Your task to perform on an android device: open app "Facebook Lite" (install if not already installed) and enter user name: "suppers@inbox.com" and password: "downplayed" Image 0: 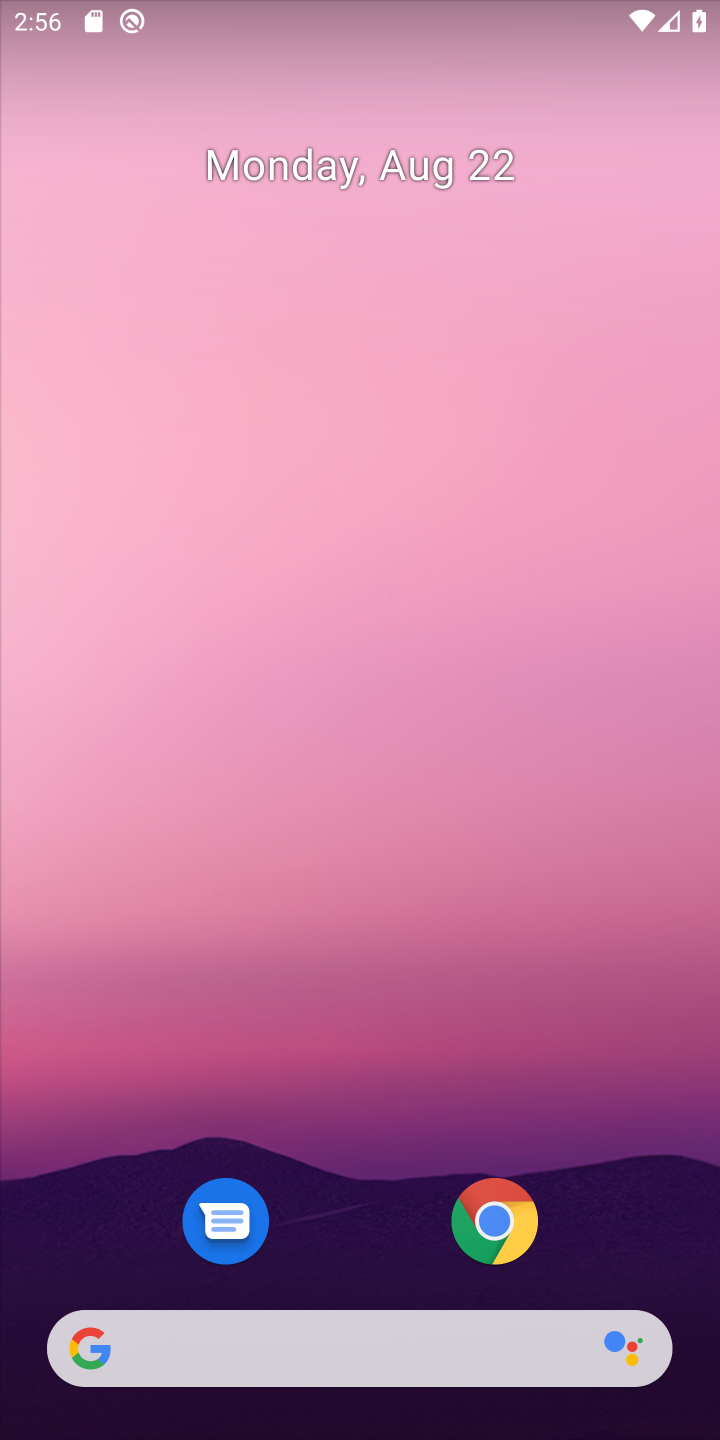
Step 0: drag from (369, 1261) to (500, 187)
Your task to perform on an android device: open app "Facebook Lite" (install if not already installed) and enter user name: "suppers@inbox.com" and password: "downplayed" Image 1: 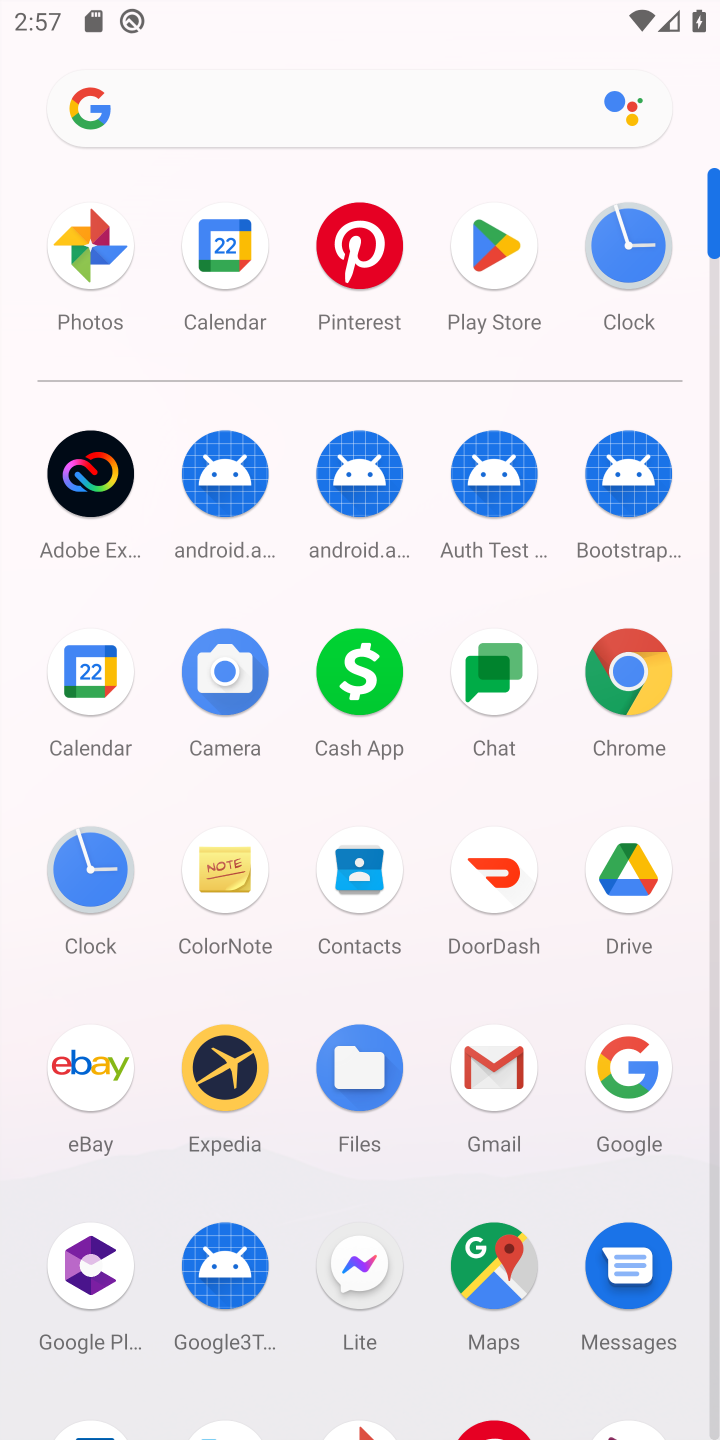
Step 1: click (494, 237)
Your task to perform on an android device: open app "Facebook Lite" (install if not already installed) and enter user name: "suppers@inbox.com" and password: "downplayed" Image 2: 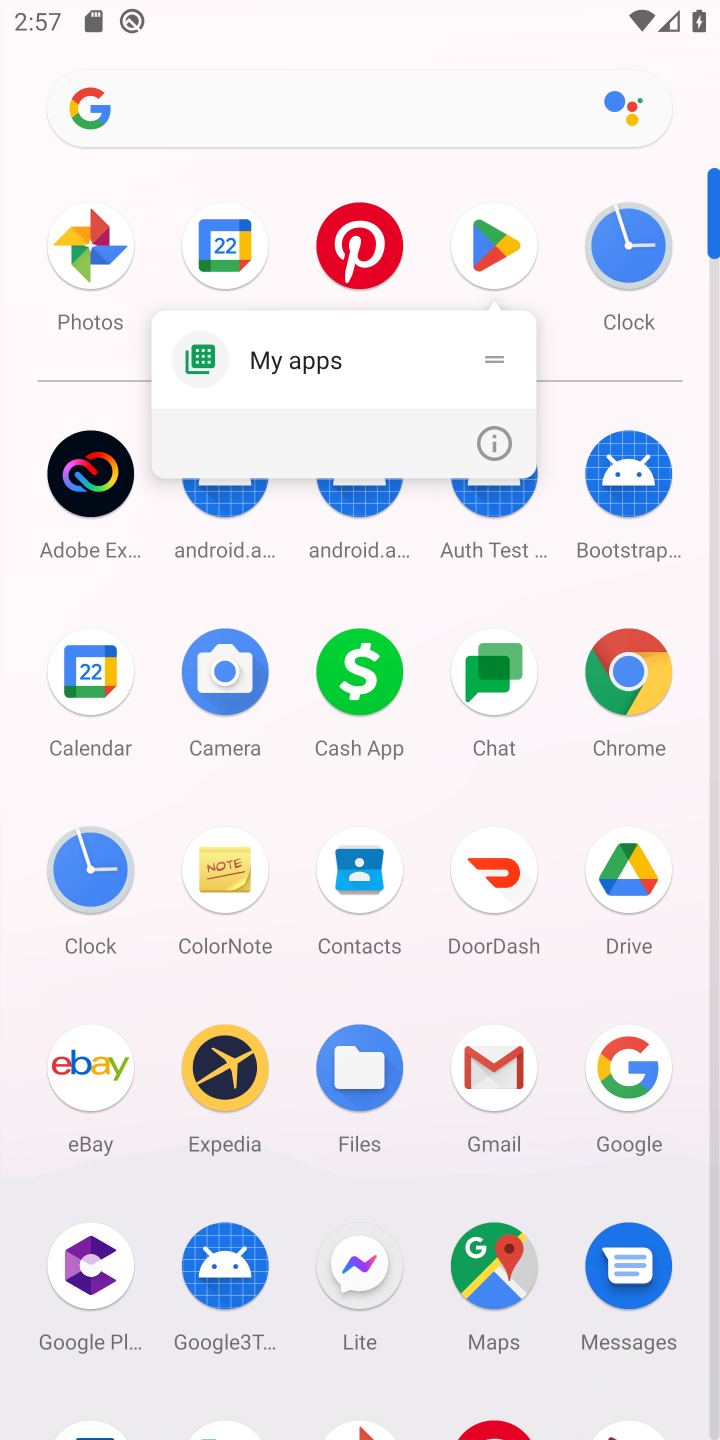
Step 2: click (479, 235)
Your task to perform on an android device: open app "Facebook Lite" (install if not already installed) and enter user name: "suppers@inbox.com" and password: "downplayed" Image 3: 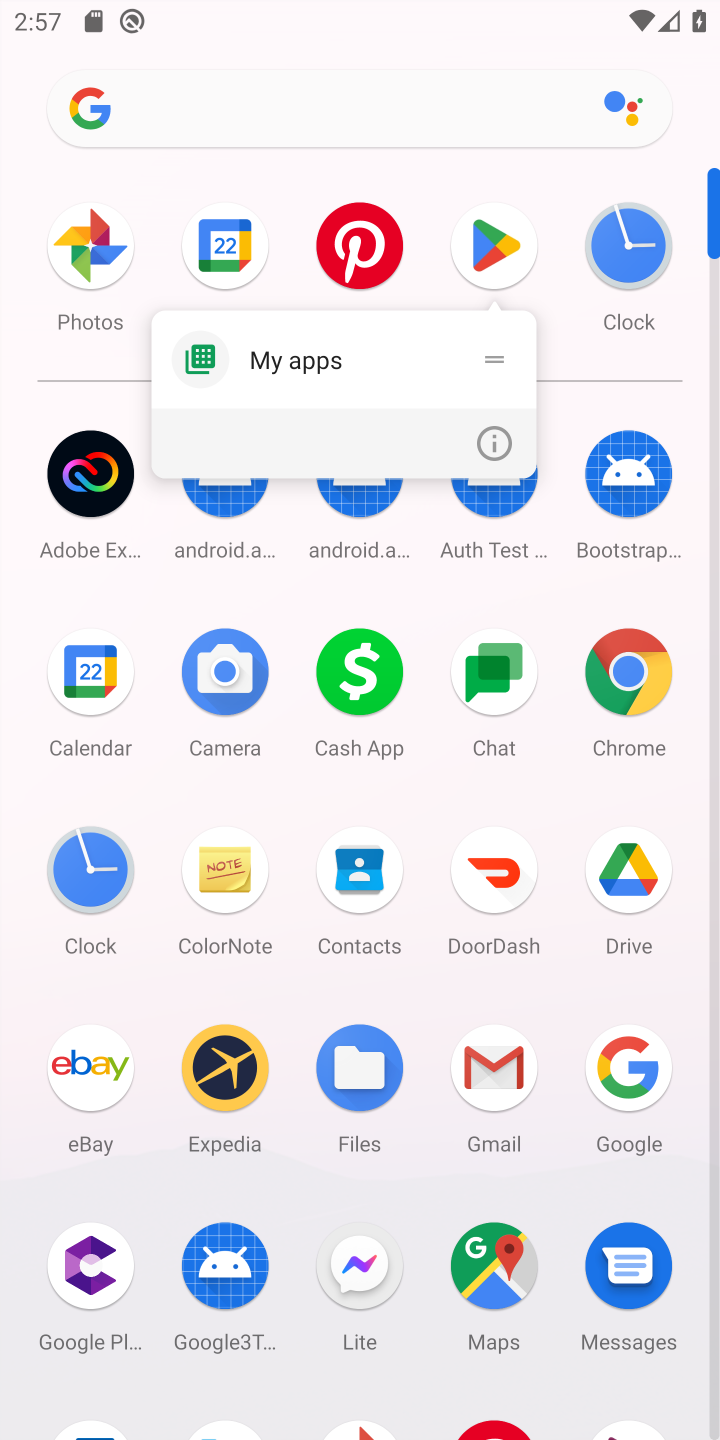
Step 3: click (489, 238)
Your task to perform on an android device: open app "Facebook Lite" (install if not already installed) and enter user name: "suppers@inbox.com" and password: "downplayed" Image 4: 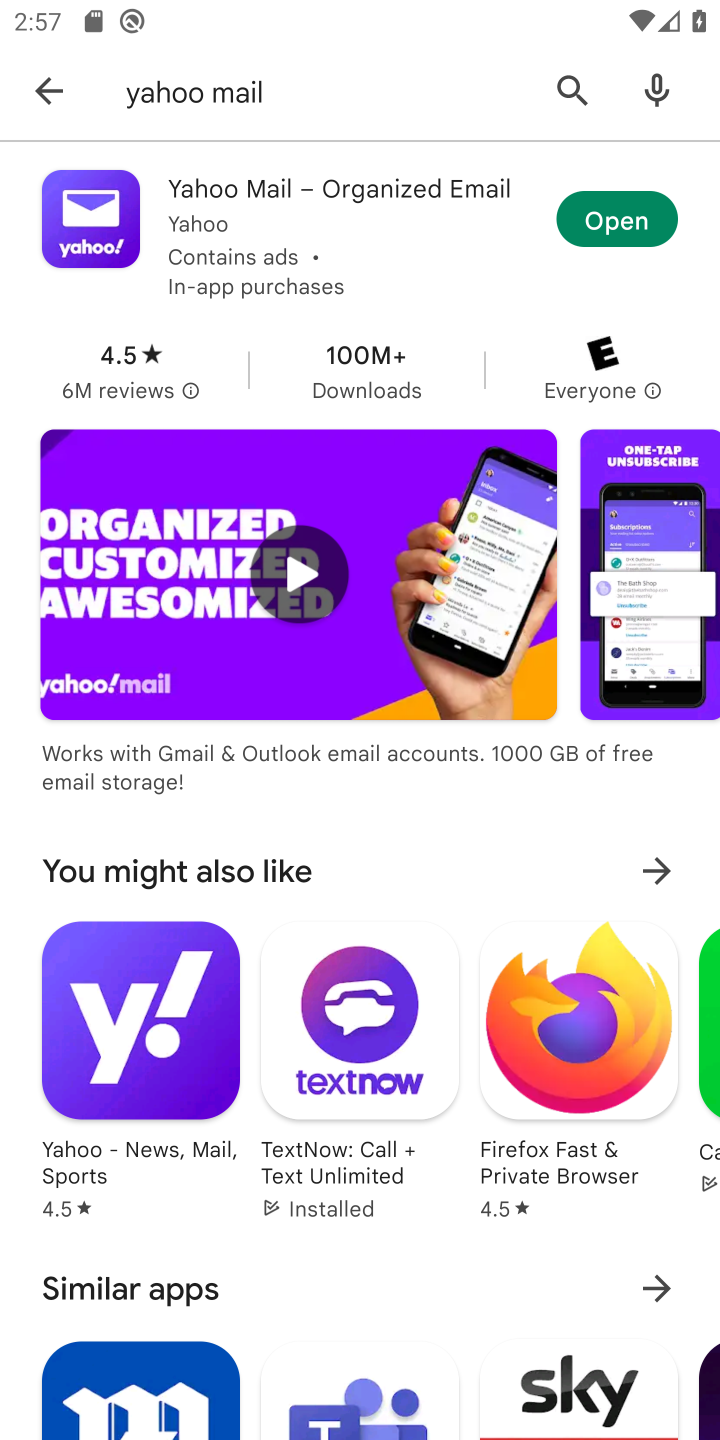
Step 4: click (604, 229)
Your task to perform on an android device: open app "Facebook Lite" (install if not already installed) and enter user name: "suppers@inbox.com" and password: "downplayed" Image 5: 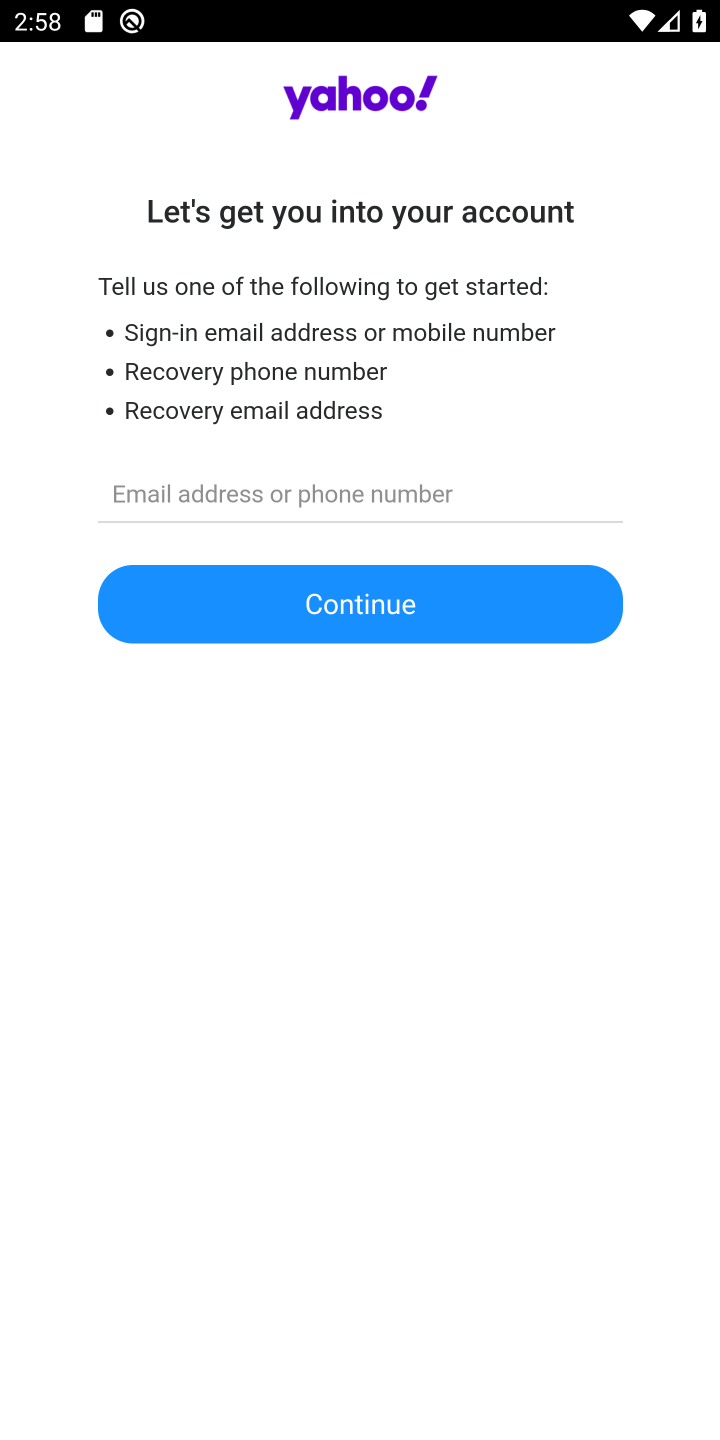
Step 5: task complete